Your task to perform on an android device: Is it going to rain this weekend? Image 0: 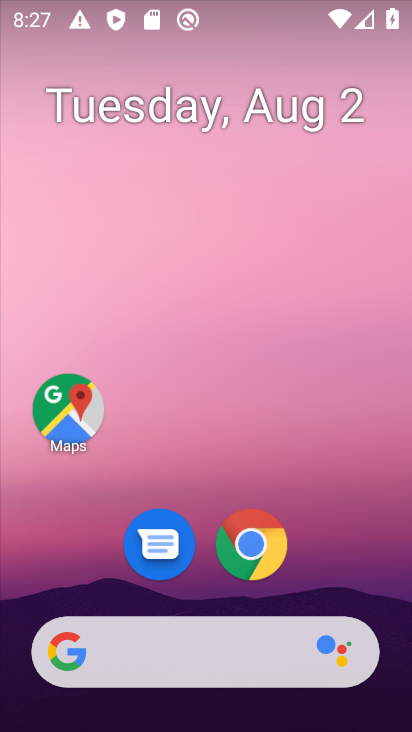
Step 0: drag from (200, 597) to (138, 9)
Your task to perform on an android device: Is it going to rain this weekend? Image 1: 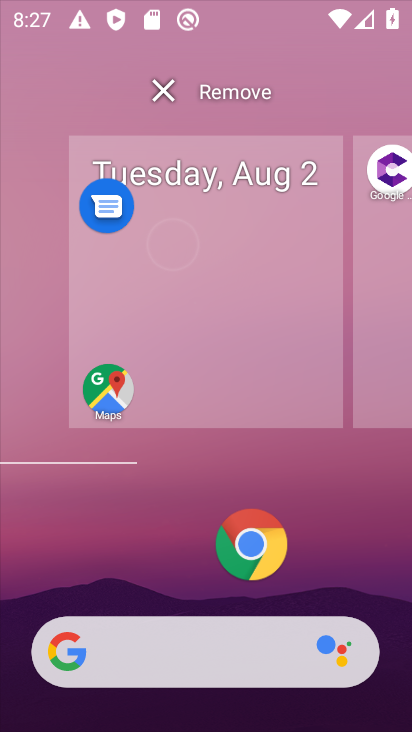
Step 1: drag from (190, 594) to (130, 116)
Your task to perform on an android device: Is it going to rain this weekend? Image 2: 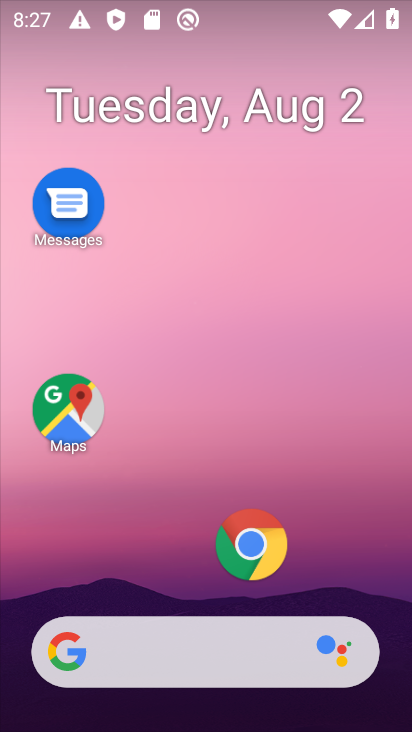
Step 2: drag from (150, 614) to (150, 69)
Your task to perform on an android device: Is it going to rain this weekend? Image 3: 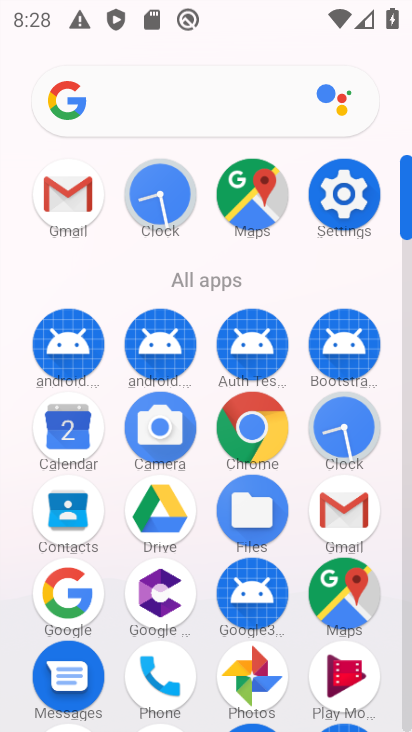
Step 3: click (55, 596)
Your task to perform on an android device: Is it going to rain this weekend? Image 4: 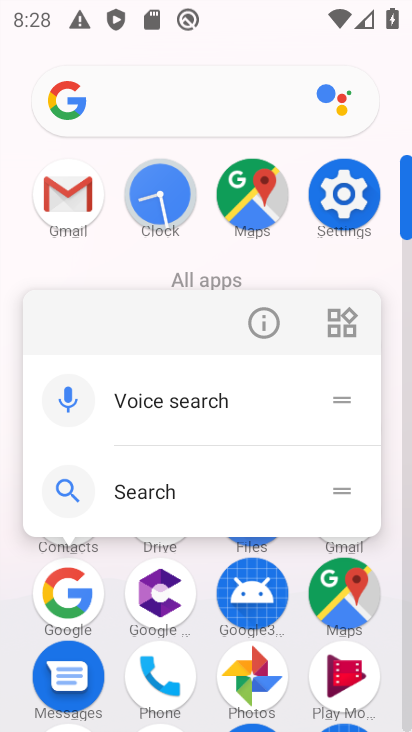
Step 4: click (31, 145)
Your task to perform on an android device: Is it going to rain this weekend? Image 5: 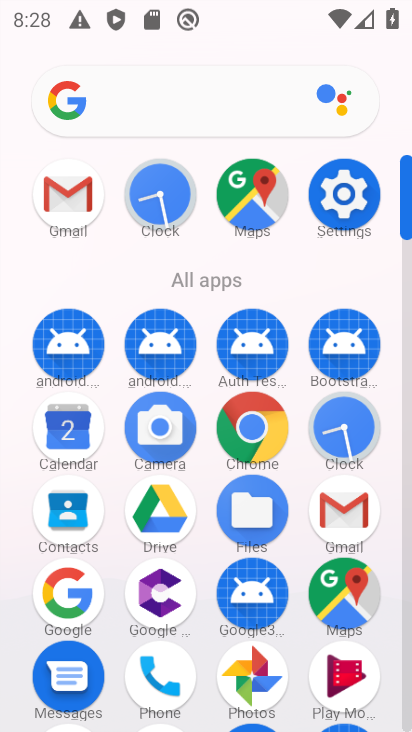
Step 5: click (63, 591)
Your task to perform on an android device: Is it going to rain this weekend? Image 6: 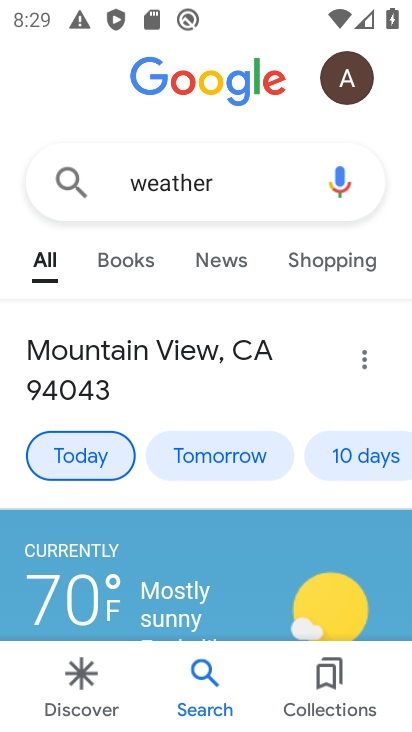
Step 6: click (206, 314)
Your task to perform on an android device: Is it going to rain this weekend? Image 7: 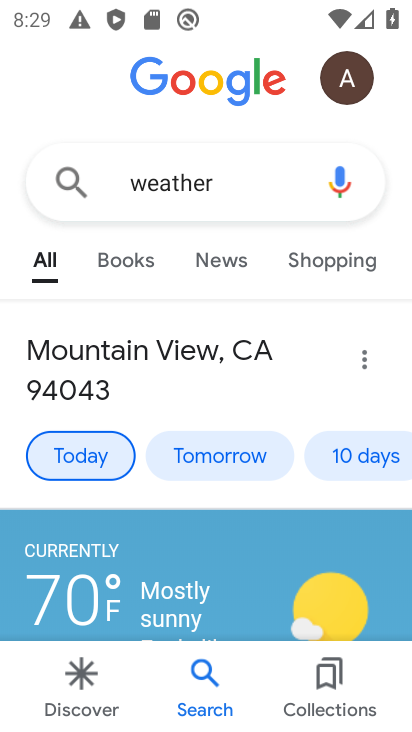
Step 7: click (214, 186)
Your task to perform on an android device: Is it going to rain this weekend? Image 8: 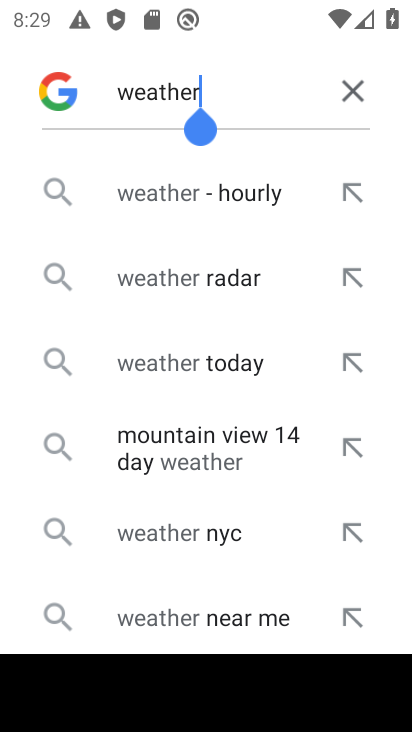
Step 8: drag from (225, 594) to (225, 239)
Your task to perform on an android device: Is it going to rain this weekend? Image 9: 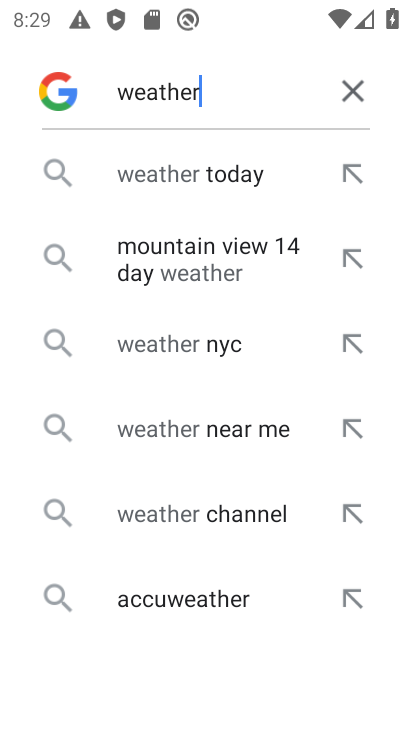
Step 9: drag from (204, 629) to (203, 232)
Your task to perform on an android device: Is it going to rain this weekend? Image 10: 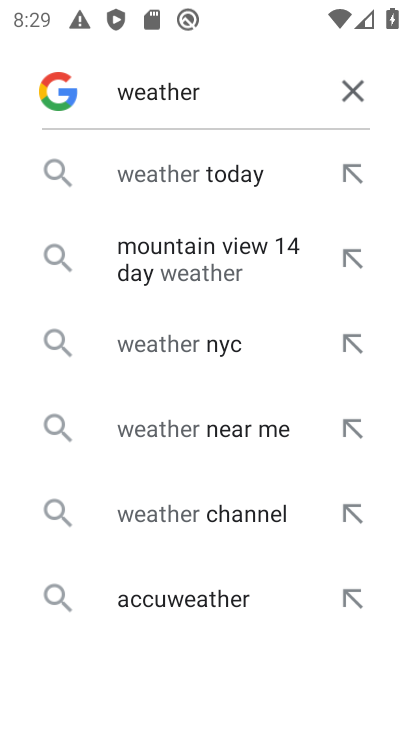
Step 10: click (343, 93)
Your task to perform on an android device: Is it going to rain this weekend? Image 11: 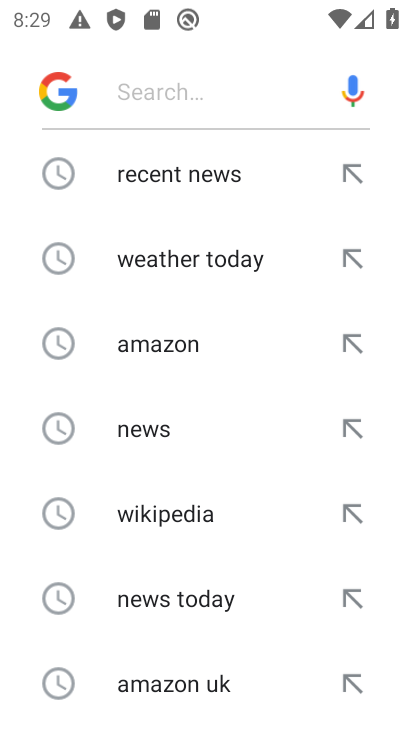
Step 11: drag from (182, 566) to (173, 122)
Your task to perform on an android device: Is it going to rain this weekend? Image 12: 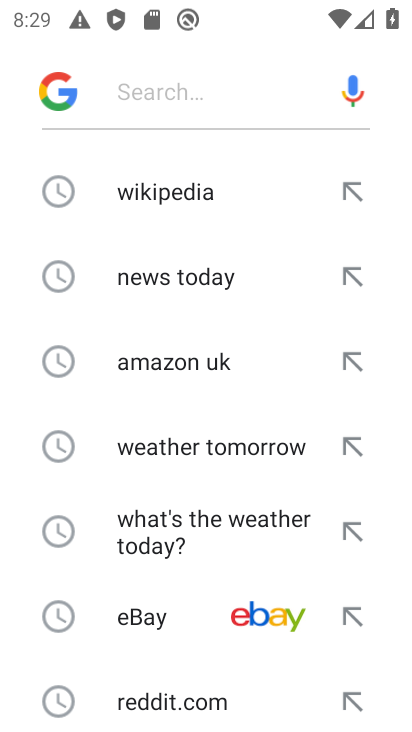
Step 12: drag from (147, 635) to (150, 209)
Your task to perform on an android device: Is it going to rain this weekend? Image 13: 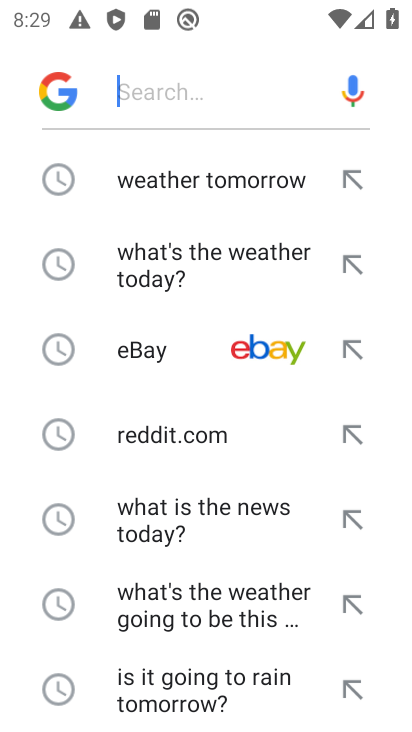
Step 13: drag from (150, 633) to (144, 292)
Your task to perform on an android device: Is it going to rain this weekend? Image 14: 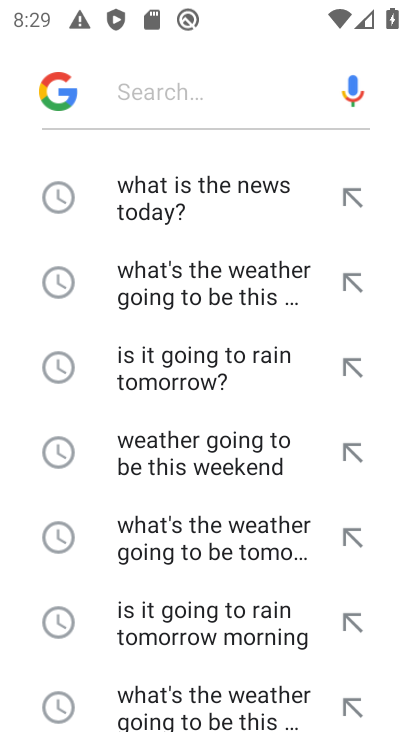
Step 14: drag from (181, 654) to (179, 337)
Your task to perform on an android device: Is it going to rain this weekend? Image 15: 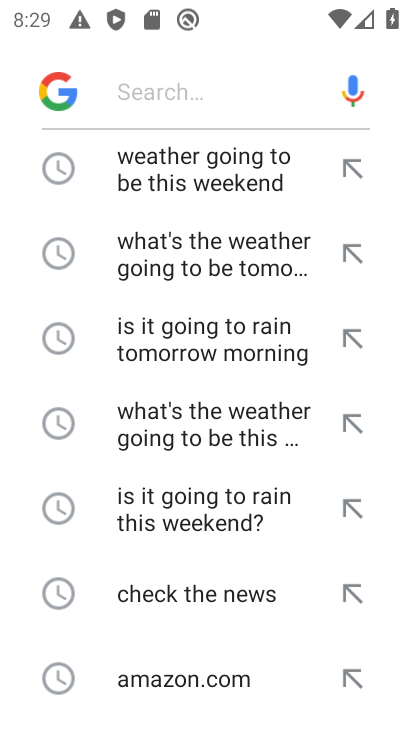
Step 15: click (153, 514)
Your task to perform on an android device: Is it going to rain this weekend? Image 16: 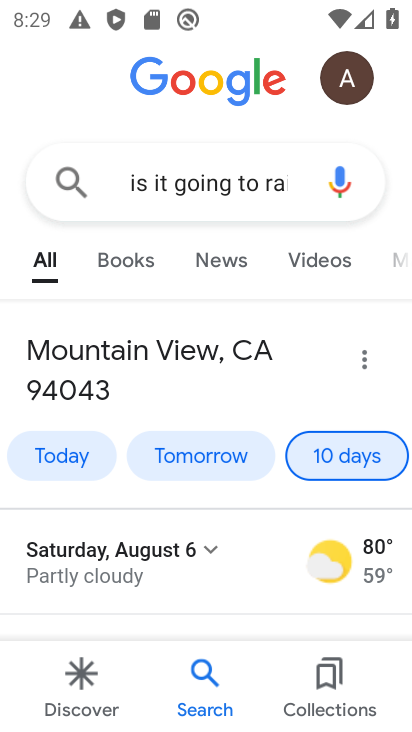
Step 16: drag from (159, 589) to (100, 165)
Your task to perform on an android device: Is it going to rain this weekend? Image 17: 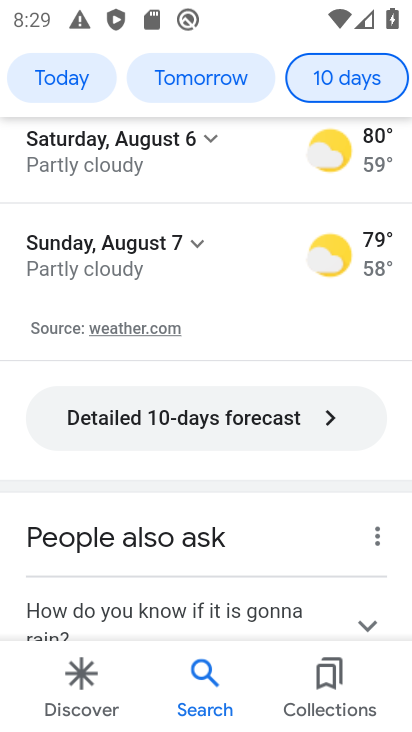
Step 17: click (189, 473)
Your task to perform on an android device: Is it going to rain this weekend? Image 18: 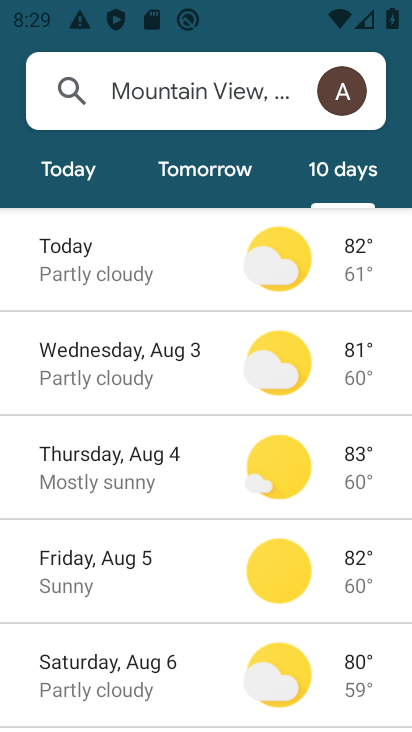
Step 18: task complete